Your task to perform on an android device: allow notifications from all sites in the chrome app Image 0: 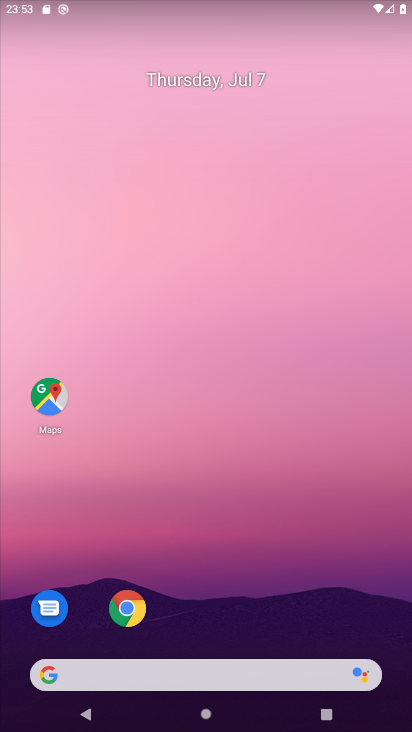
Step 0: drag from (237, 671) to (240, 203)
Your task to perform on an android device: allow notifications from all sites in the chrome app Image 1: 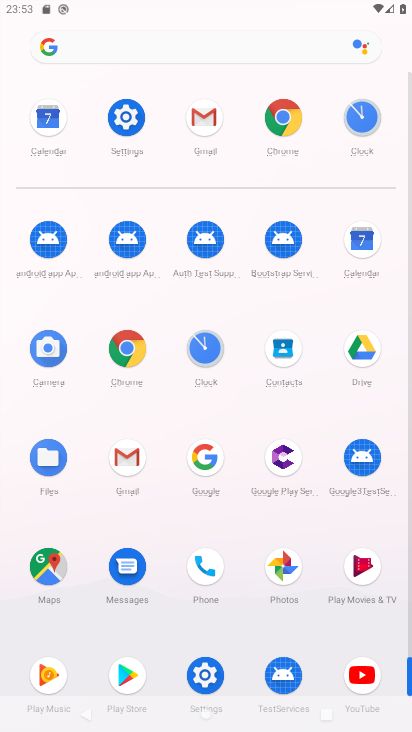
Step 1: click (205, 667)
Your task to perform on an android device: allow notifications from all sites in the chrome app Image 2: 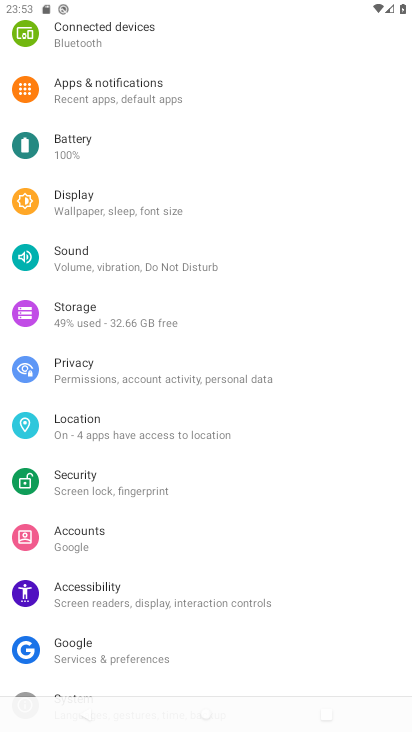
Step 2: drag from (181, 555) to (171, 224)
Your task to perform on an android device: allow notifications from all sites in the chrome app Image 3: 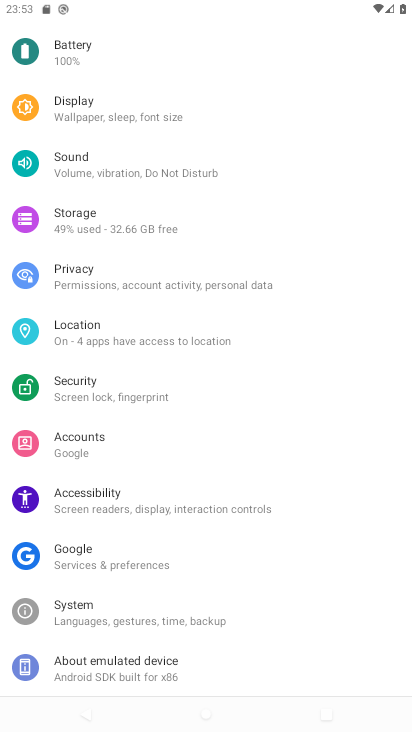
Step 3: press home button
Your task to perform on an android device: allow notifications from all sites in the chrome app Image 4: 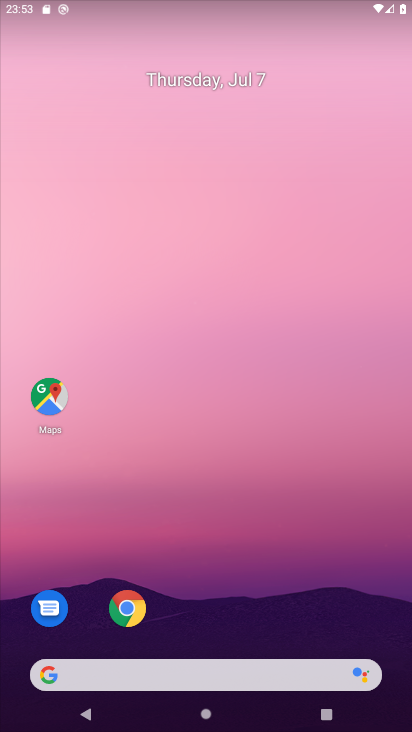
Step 4: drag from (239, 571) to (232, 10)
Your task to perform on an android device: allow notifications from all sites in the chrome app Image 5: 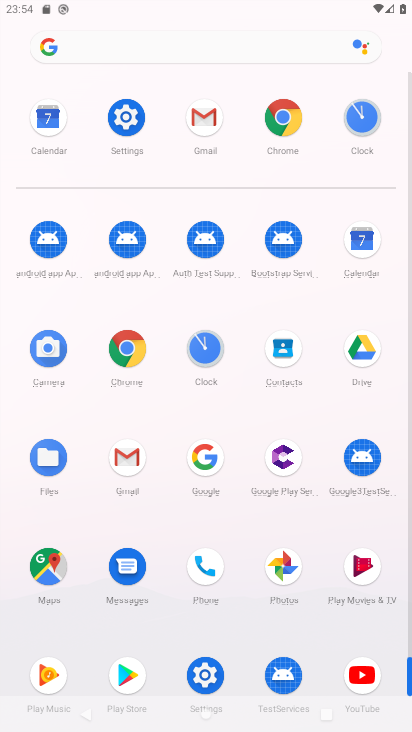
Step 5: click (284, 115)
Your task to perform on an android device: allow notifications from all sites in the chrome app Image 6: 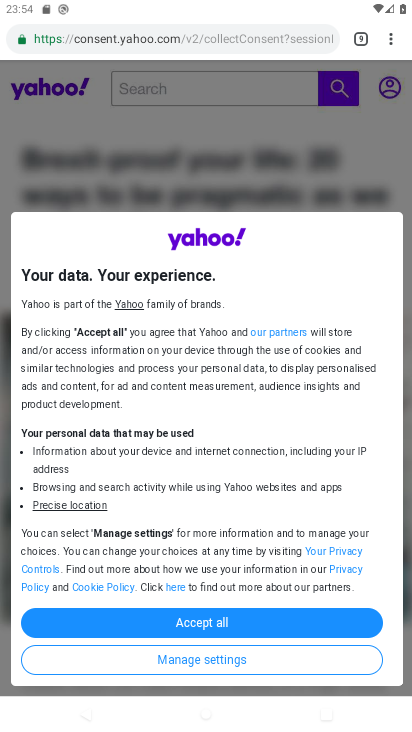
Step 6: click (396, 31)
Your task to perform on an android device: allow notifications from all sites in the chrome app Image 7: 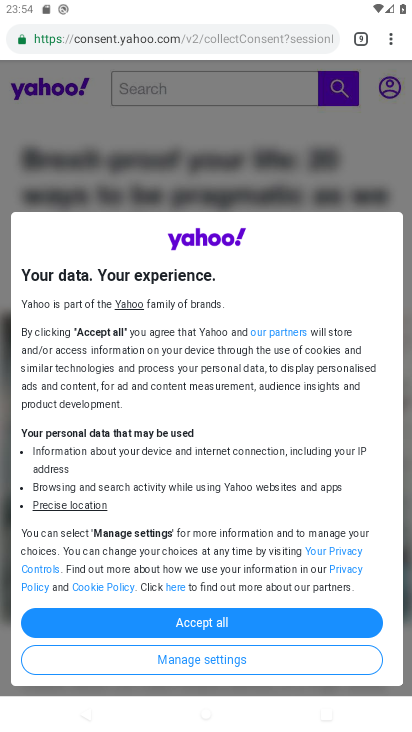
Step 7: click (388, 45)
Your task to perform on an android device: allow notifications from all sites in the chrome app Image 8: 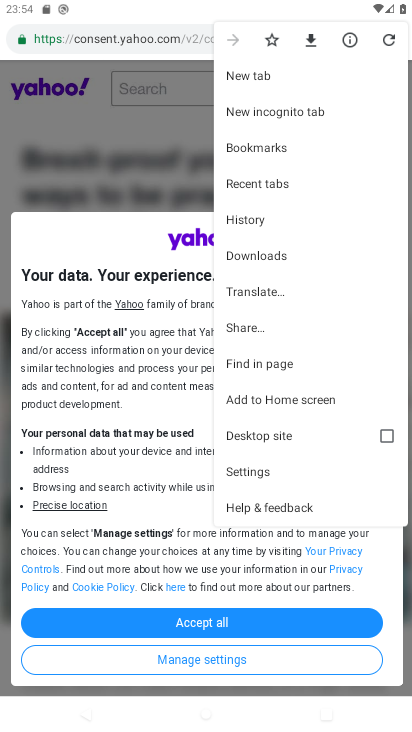
Step 8: click (263, 459)
Your task to perform on an android device: allow notifications from all sites in the chrome app Image 9: 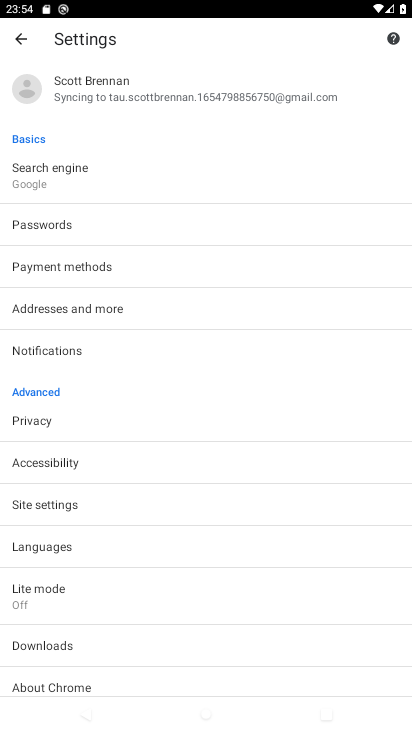
Step 9: click (92, 508)
Your task to perform on an android device: allow notifications from all sites in the chrome app Image 10: 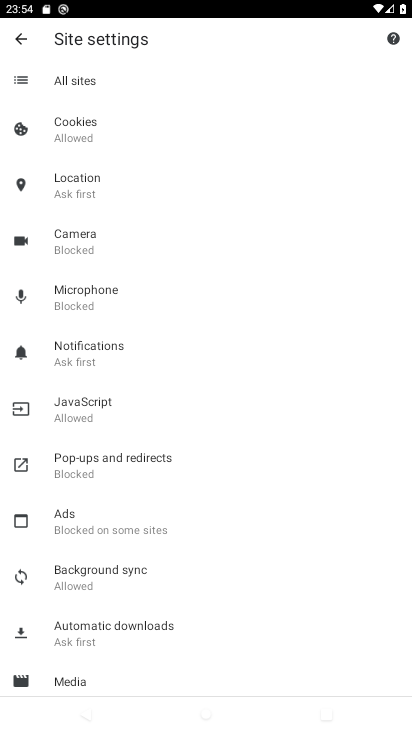
Step 10: click (77, 133)
Your task to perform on an android device: allow notifications from all sites in the chrome app Image 11: 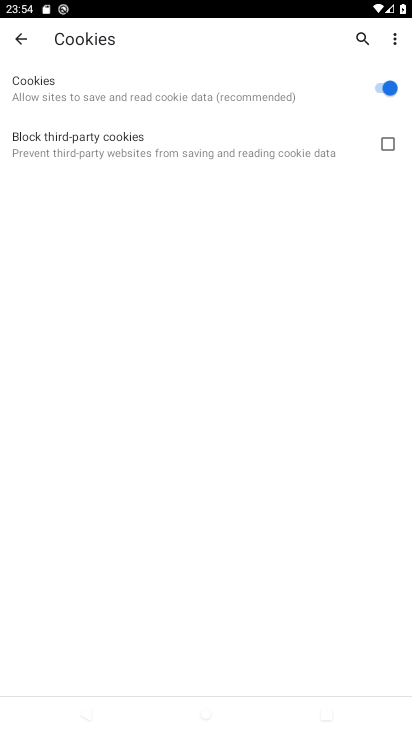
Step 11: click (14, 35)
Your task to perform on an android device: allow notifications from all sites in the chrome app Image 12: 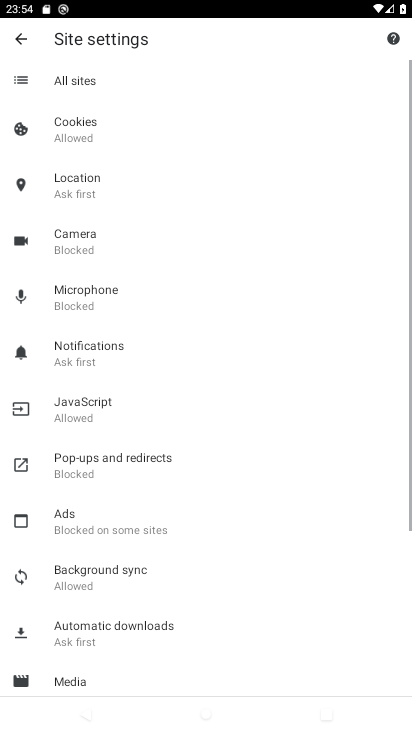
Step 12: click (84, 242)
Your task to perform on an android device: allow notifications from all sites in the chrome app Image 13: 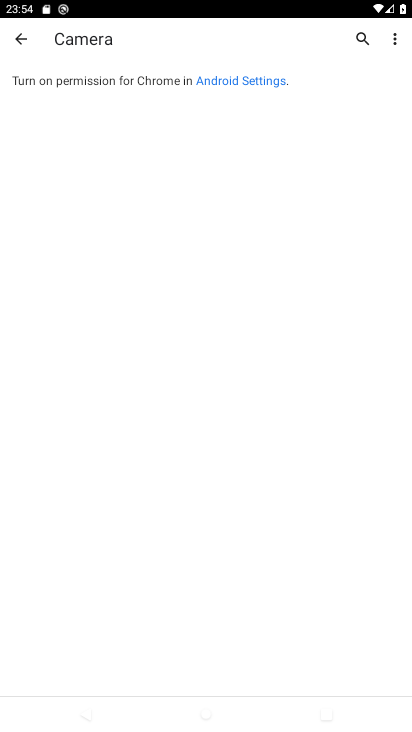
Step 13: click (25, 47)
Your task to perform on an android device: allow notifications from all sites in the chrome app Image 14: 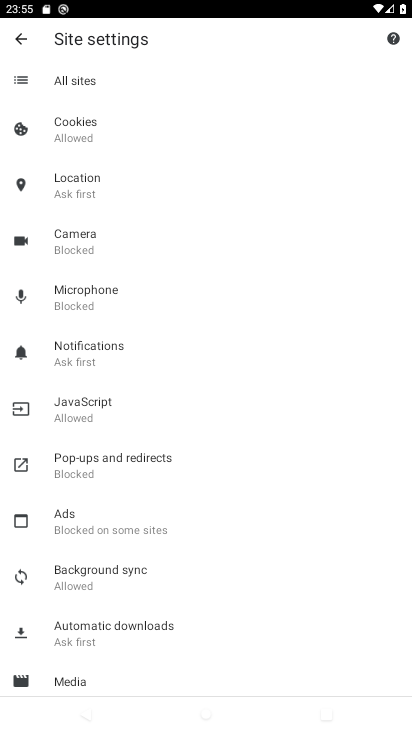
Step 14: click (109, 348)
Your task to perform on an android device: allow notifications from all sites in the chrome app Image 15: 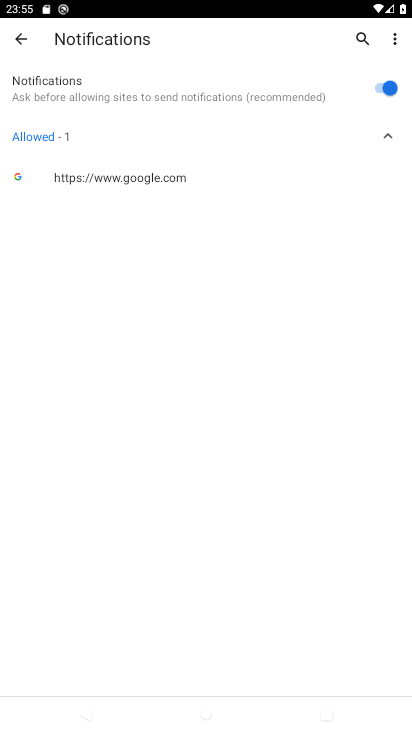
Step 15: task complete